Your task to perform on an android device: check battery use Image 0: 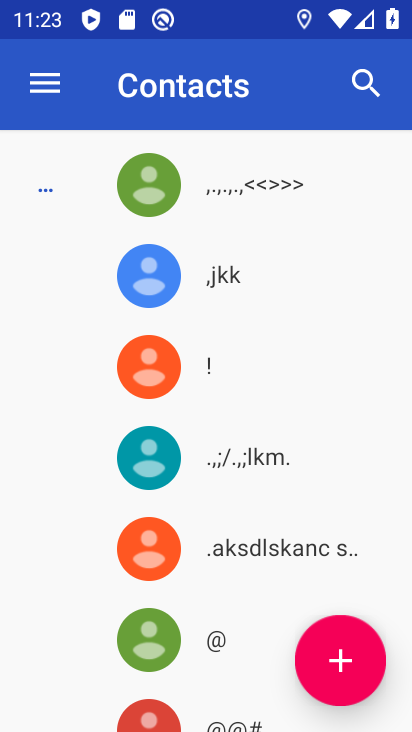
Step 0: press home button
Your task to perform on an android device: check battery use Image 1: 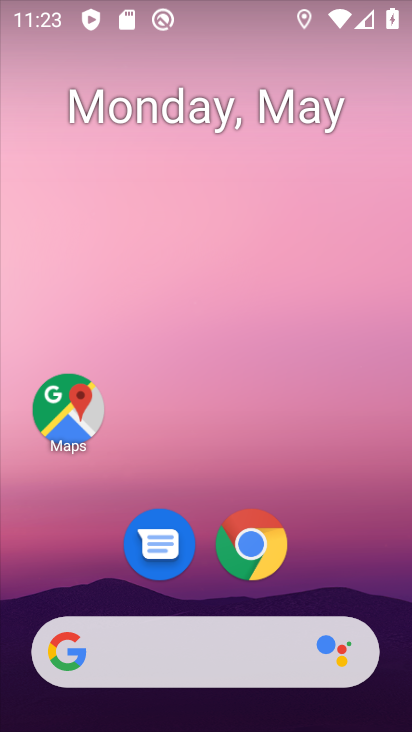
Step 1: drag from (190, 434) to (157, 178)
Your task to perform on an android device: check battery use Image 2: 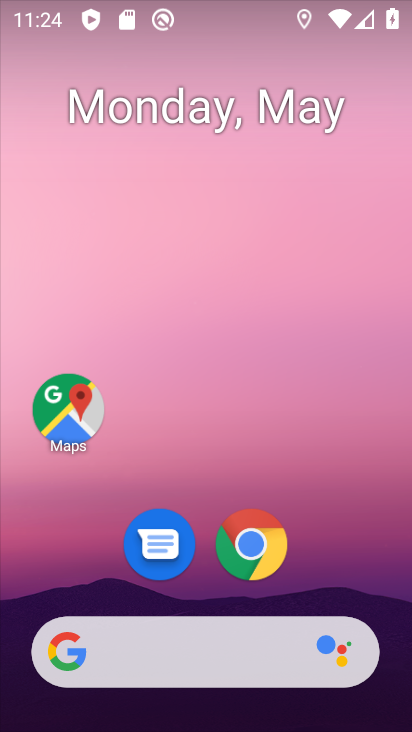
Step 2: drag from (192, 455) to (173, 132)
Your task to perform on an android device: check battery use Image 3: 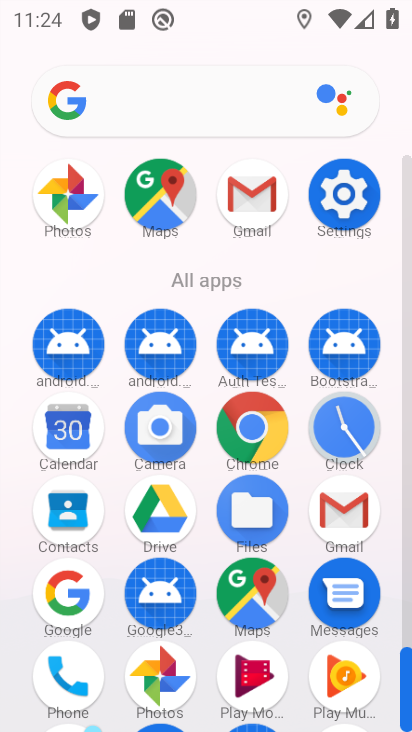
Step 3: click (345, 194)
Your task to perform on an android device: check battery use Image 4: 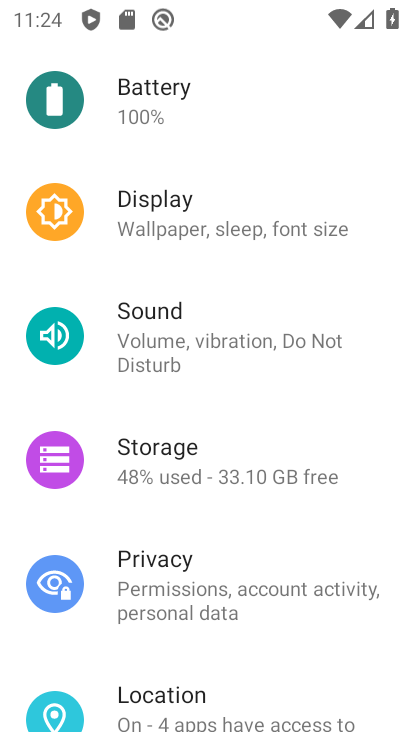
Step 4: click (157, 92)
Your task to perform on an android device: check battery use Image 5: 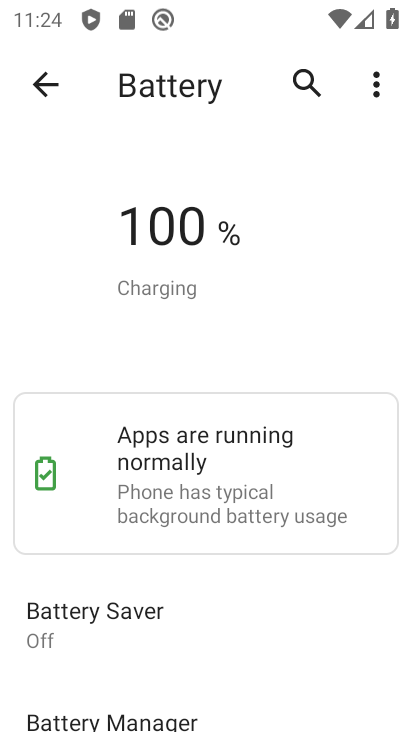
Step 5: task complete